Your task to perform on an android device: turn off airplane mode Image 0: 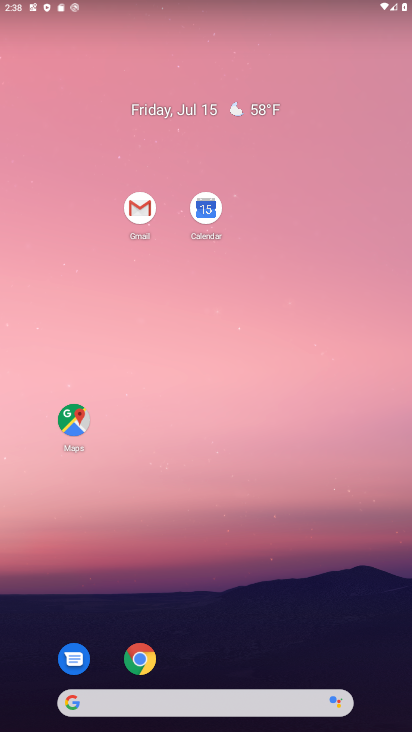
Step 0: drag from (269, 624) to (308, 177)
Your task to perform on an android device: turn off airplane mode Image 1: 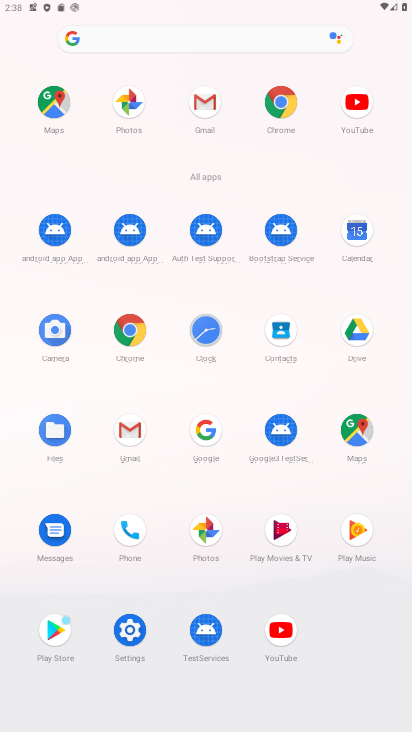
Step 1: click (130, 637)
Your task to perform on an android device: turn off airplane mode Image 2: 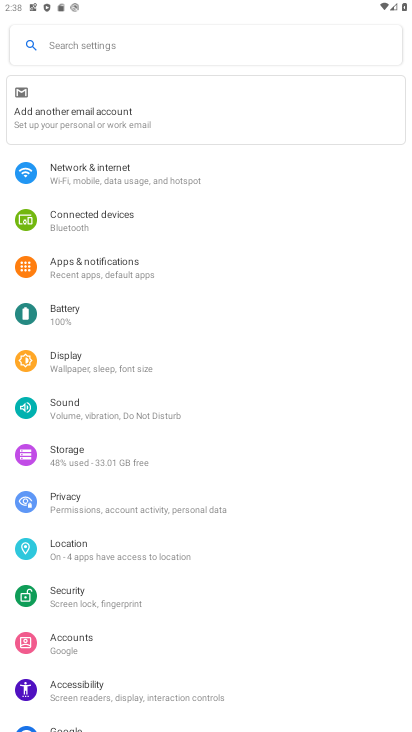
Step 2: click (200, 182)
Your task to perform on an android device: turn off airplane mode Image 3: 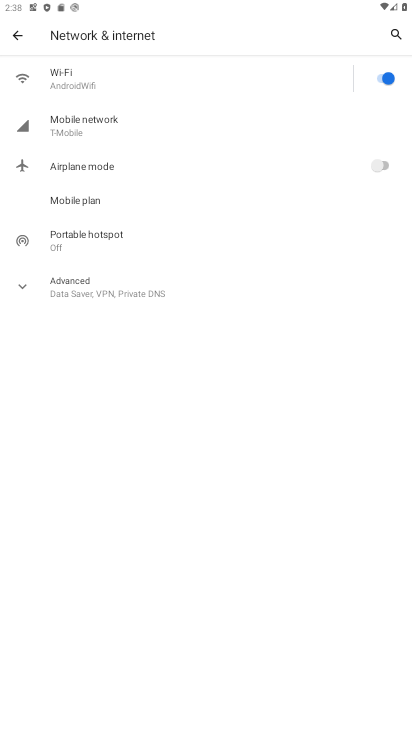
Step 3: task complete